Your task to perform on an android device: turn off notifications in google photos Image 0: 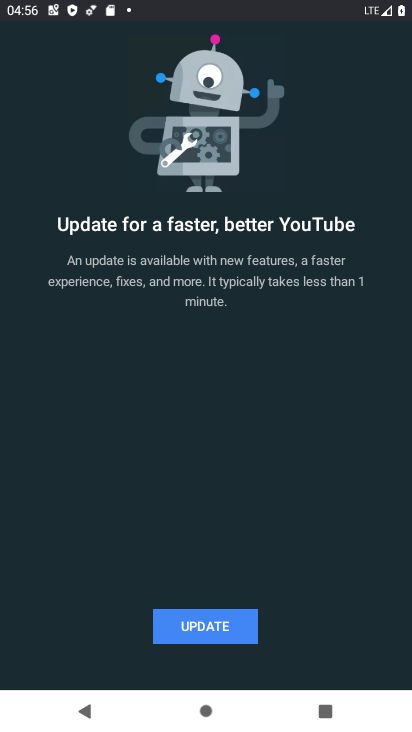
Step 0: press back button
Your task to perform on an android device: turn off notifications in google photos Image 1: 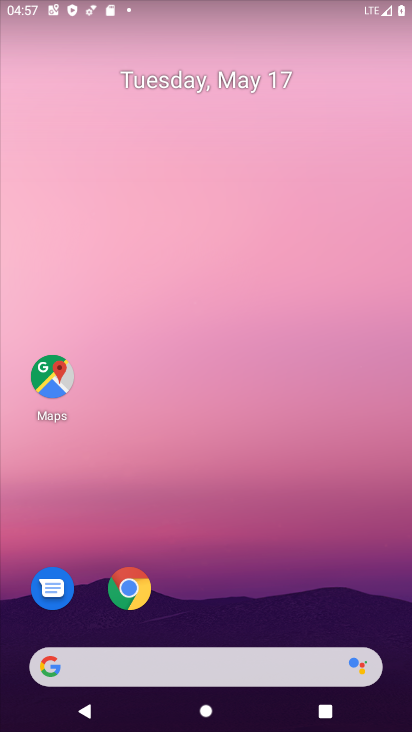
Step 1: drag from (235, 591) to (196, 129)
Your task to perform on an android device: turn off notifications in google photos Image 2: 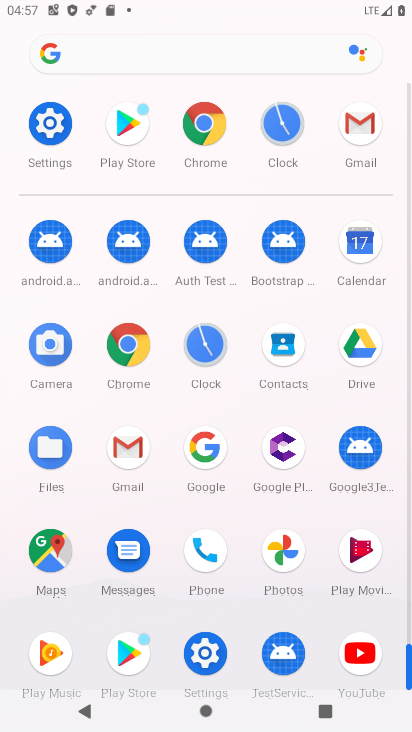
Step 2: drag from (225, 517) to (245, 373)
Your task to perform on an android device: turn off notifications in google photos Image 3: 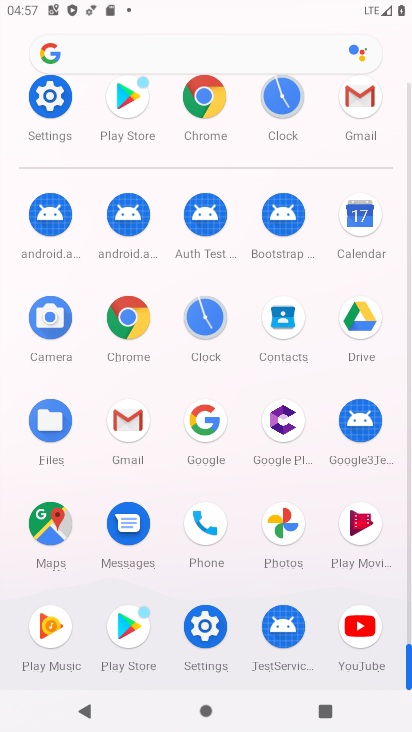
Step 3: click (279, 522)
Your task to perform on an android device: turn off notifications in google photos Image 4: 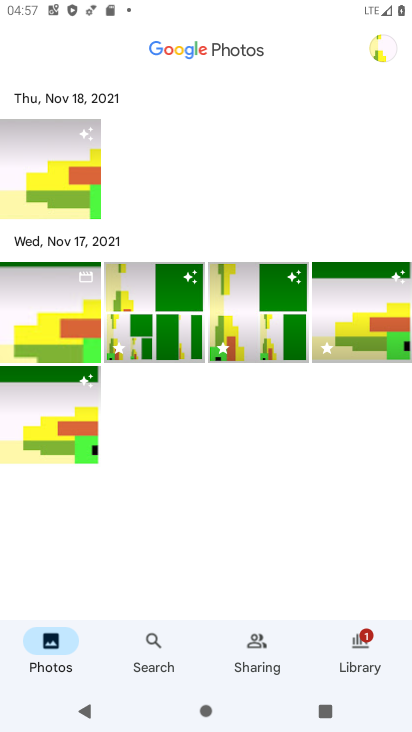
Step 4: click (380, 45)
Your task to perform on an android device: turn off notifications in google photos Image 5: 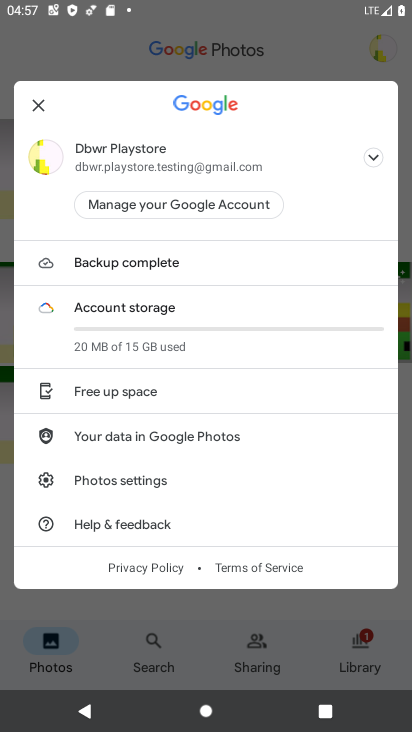
Step 5: click (121, 478)
Your task to perform on an android device: turn off notifications in google photos Image 6: 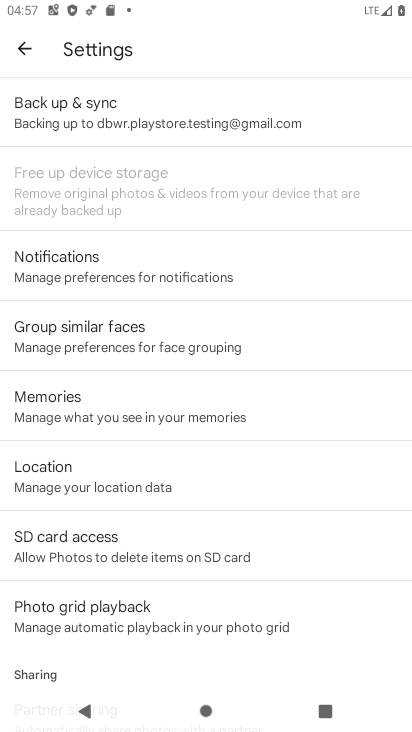
Step 6: click (60, 254)
Your task to perform on an android device: turn off notifications in google photos Image 7: 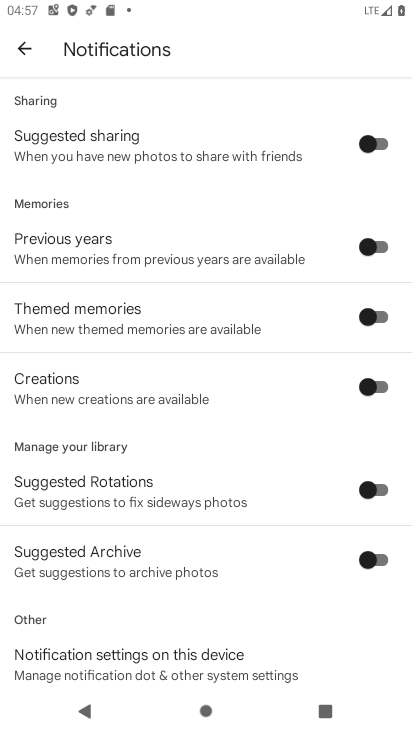
Step 7: drag from (95, 487) to (108, 384)
Your task to perform on an android device: turn off notifications in google photos Image 8: 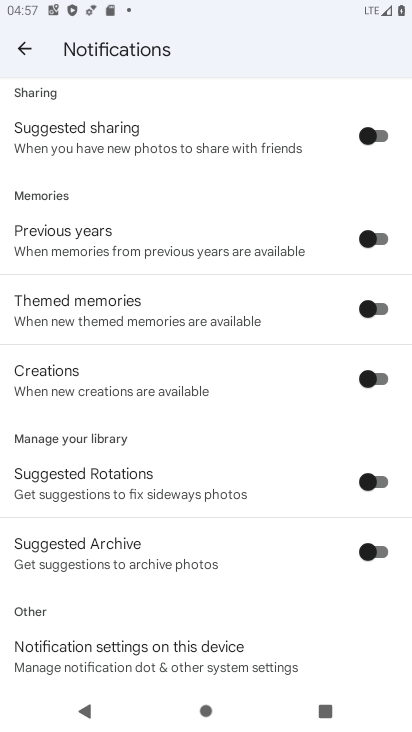
Step 8: click (68, 647)
Your task to perform on an android device: turn off notifications in google photos Image 9: 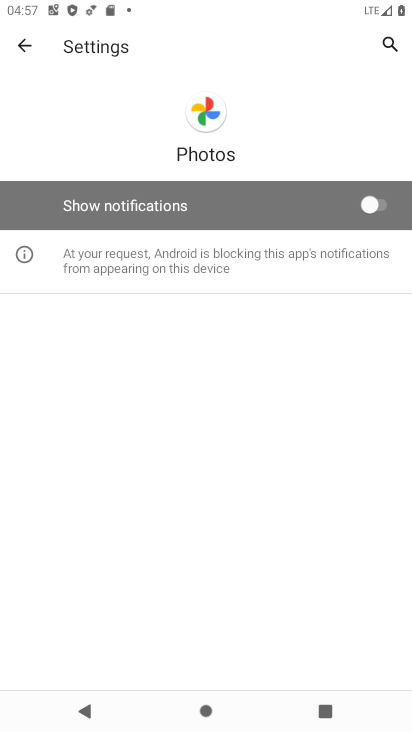
Step 9: task complete